Your task to perform on an android device: Go to Android settings Image 0: 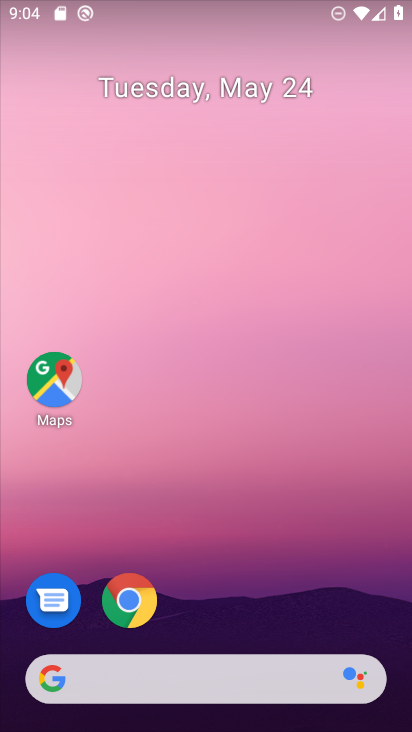
Step 0: drag from (225, 618) to (259, 3)
Your task to perform on an android device: Go to Android settings Image 1: 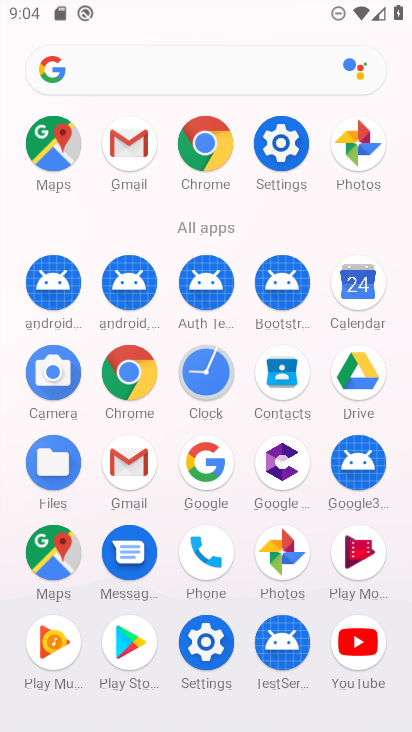
Step 1: click (286, 171)
Your task to perform on an android device: Go to Android settings Image 2: 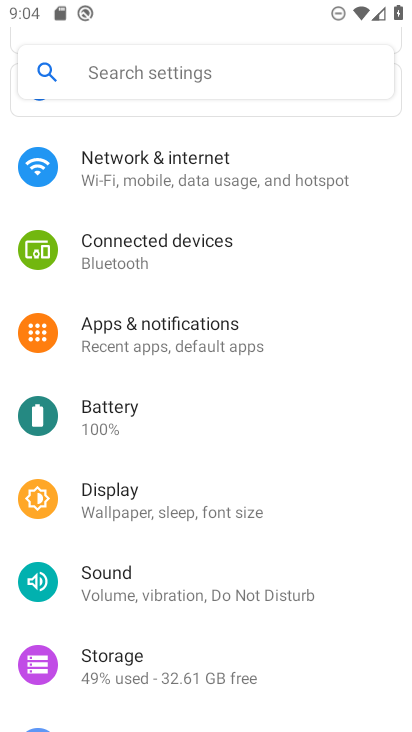
Step 2: task complete